Your task to perform on an android device: Open Android settings Image 0: 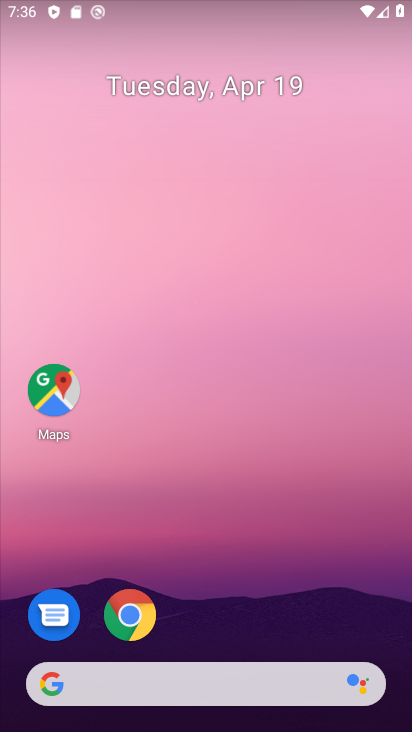
Step 0: drag from (273, 10) to (221, 456)
Your task to perform on an android device: Open Android settings Image 1: 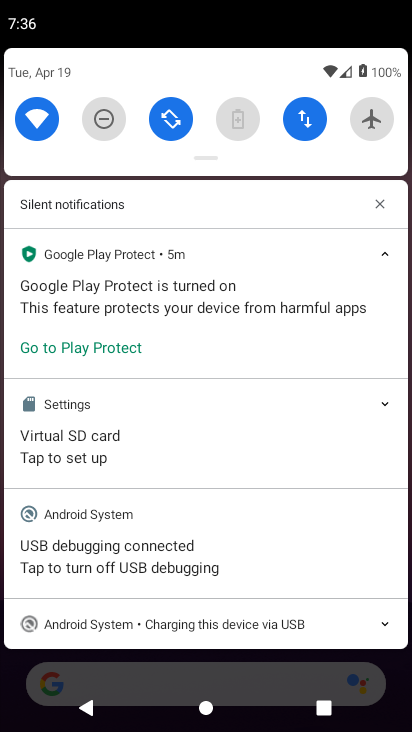
Step 1: drag from (221, 84) to (266, 624)
Your task to perform on an android device: Open Android settings Image 2: 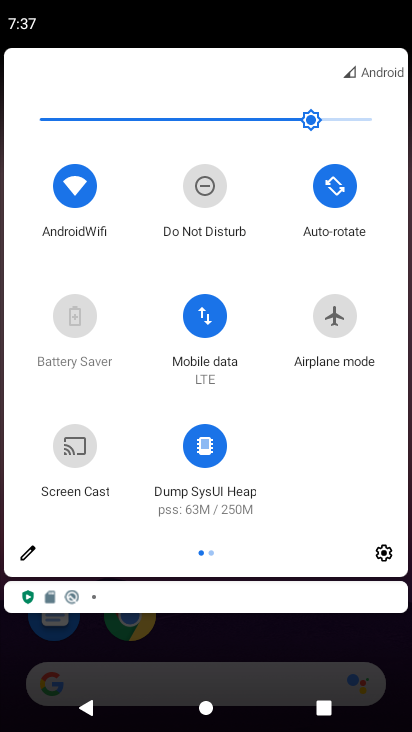
Step 2: click (383, 560)
Your task to perform on an android device: Open Android settings Image 3: 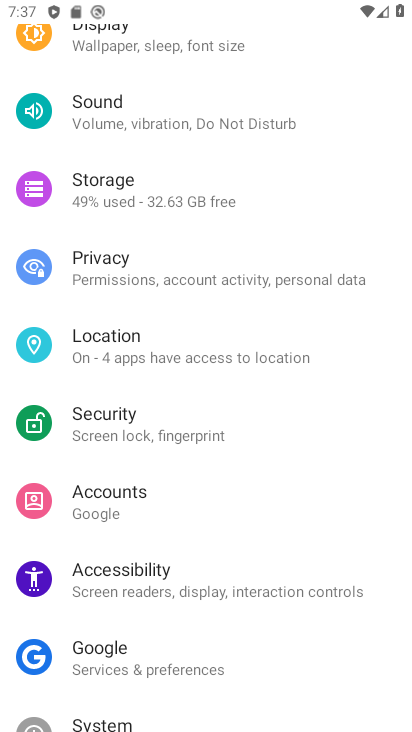
Step 3: drag from (77, 695) to (148, 207)
Your task to perform on an android device: Open Android settings Image 4: 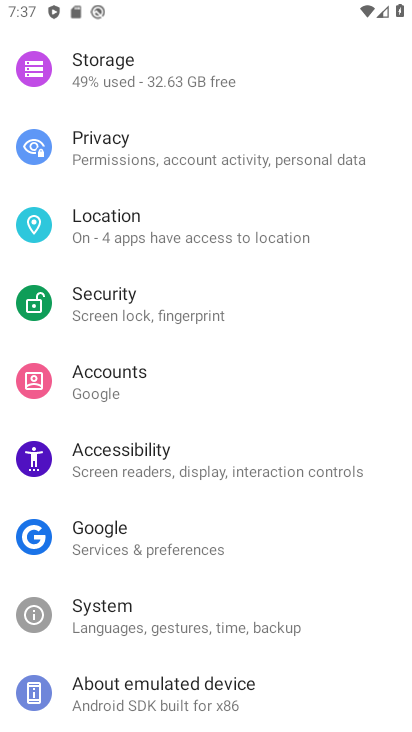
Step 4: click (173, 689)
Your task to perform on an android device: Open Android settings Image 5: 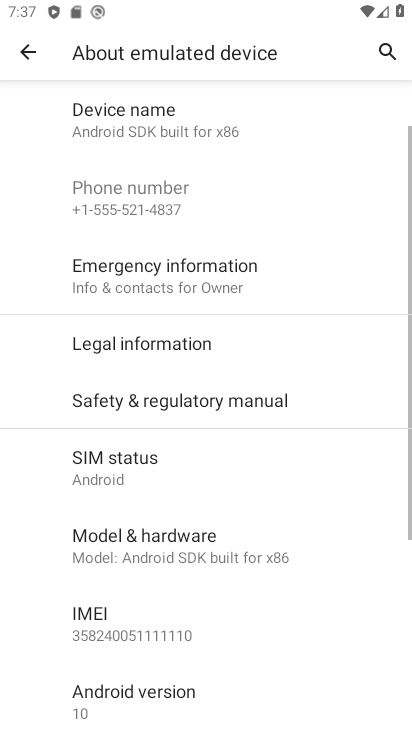
Step 5: click (160, 688)
Your task to perform on an android device: Open Android settings Image 6: 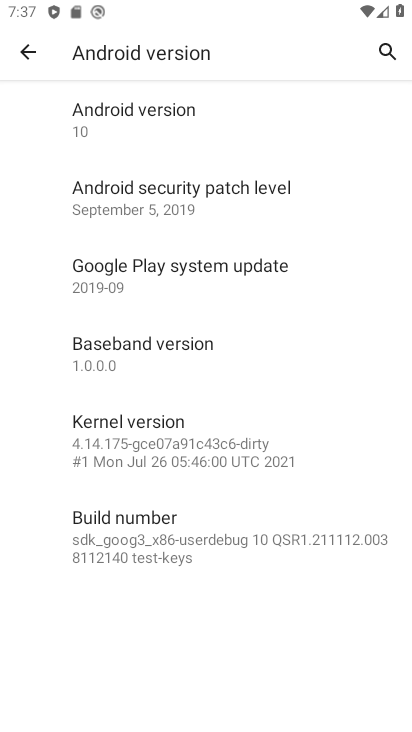
Step 6: task complete